Your task to perform on an android device: toggle notifications settings in the gmail app Image 0: 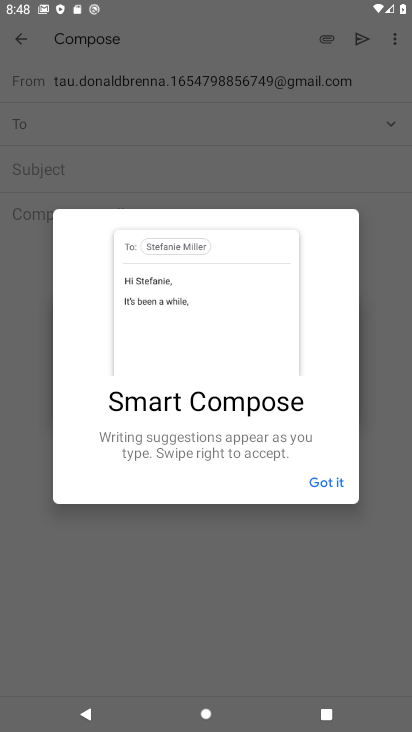
Step 0: press home button
Your task to perform on an android device: toggle notifications settings in the gmail app Image 1: 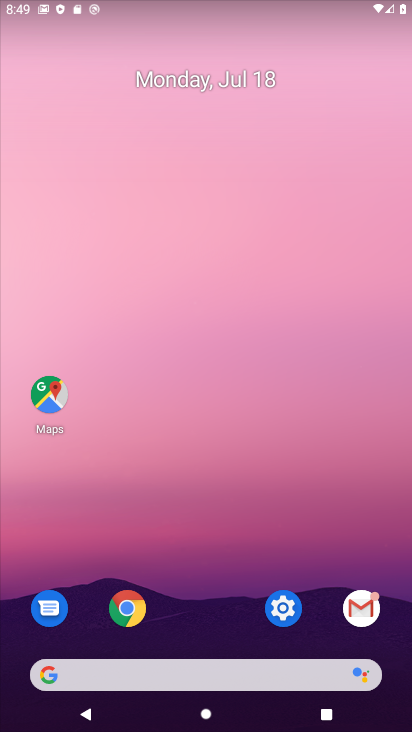
Step 1: click (360, 613)
Your task to perform on an android device: toggle notifications settings in the gmail app Image 2: 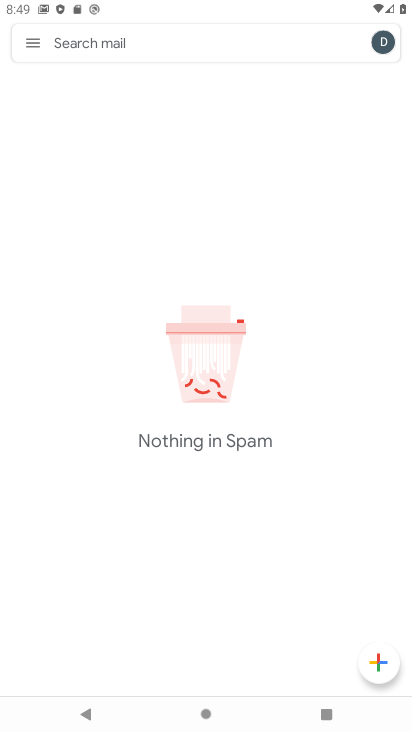
Step 2: click (34, 43)
Your task to perform on an android device: toggle notifications settings in the gmail app Image 3: 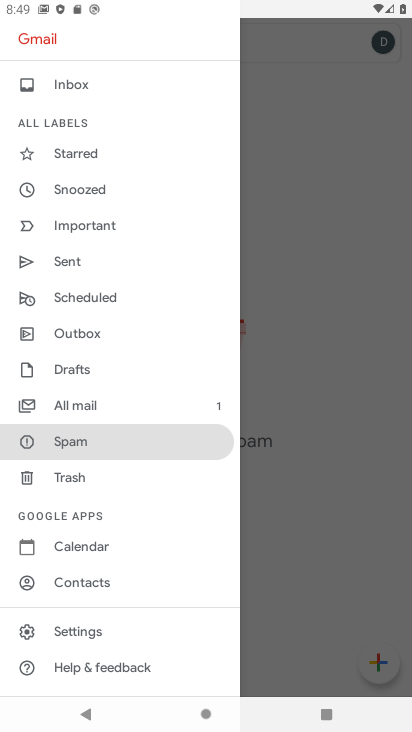
Step 3: click (73, 628)
Your task to perform on an android device: toggle notifications settings in the gmail app Image 4: 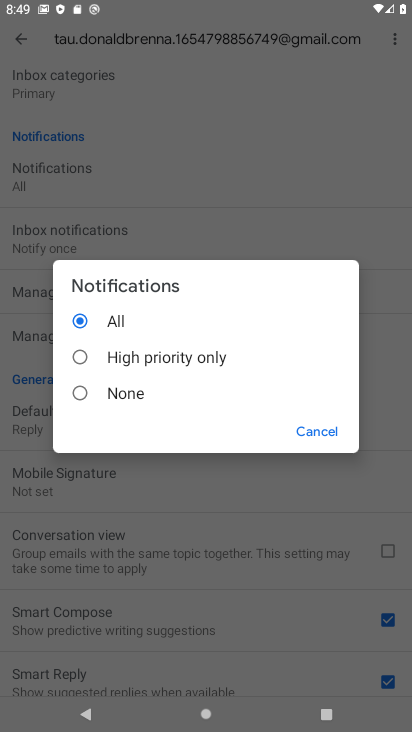
Step 4: click (295, 432)
Your task to perform on an android device: toggle notifications settings in the gmail app Image 5: 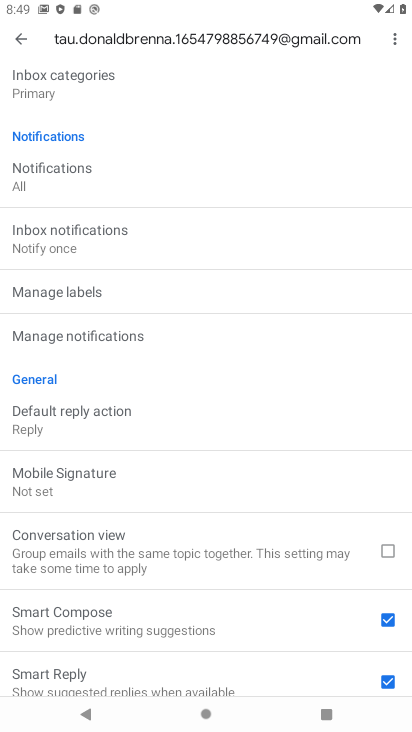
Step 5: click (101, 246)
Your task to perform on an android device: toggle notifications settings in the gmail app Image 6: 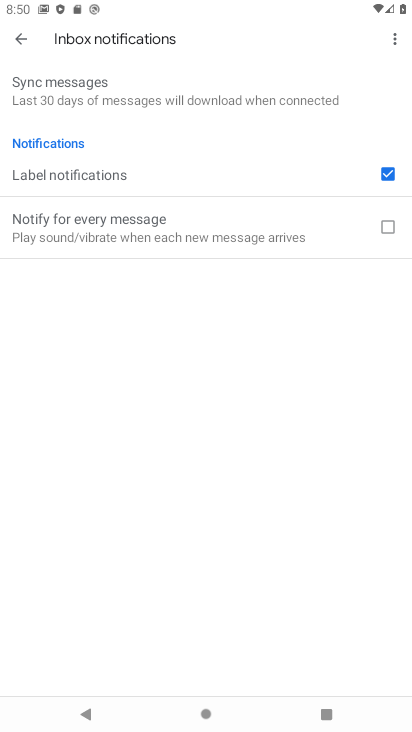
Step 6: task complete